Your task to perform on an android device: turn on location history Image 0: 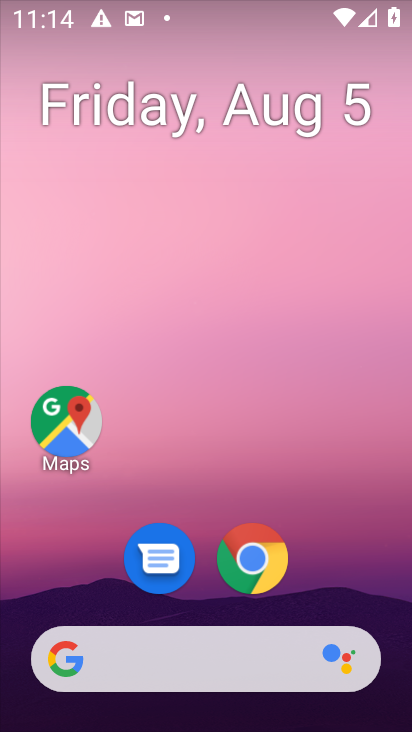
Step 0: press home button
Your task to perform on an android device: turn on location history Image 1: 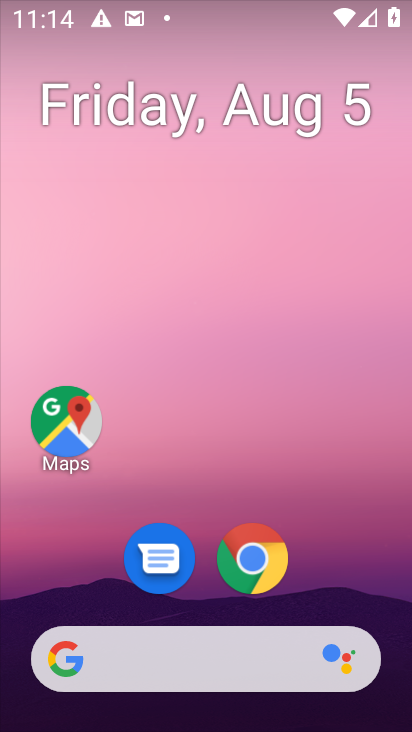
Step 1: drag from (353, 574) to (350, 290)
Your task to perform on an android device: turn on location history Image 2: 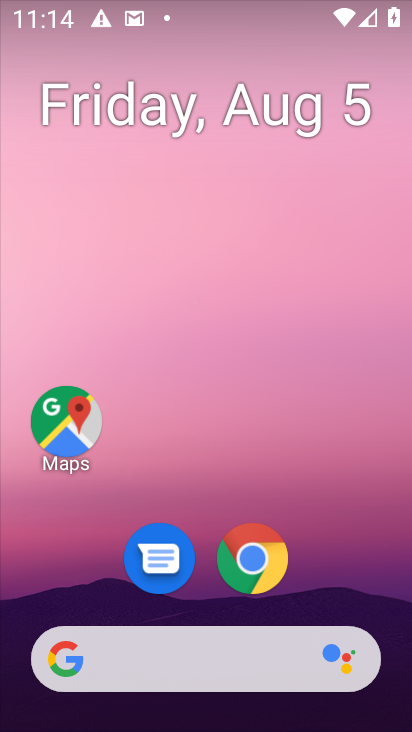
Step 2: drag from (367, 559) to (366, 218)
Your task to perform on an android device: turn on location history Image 3: 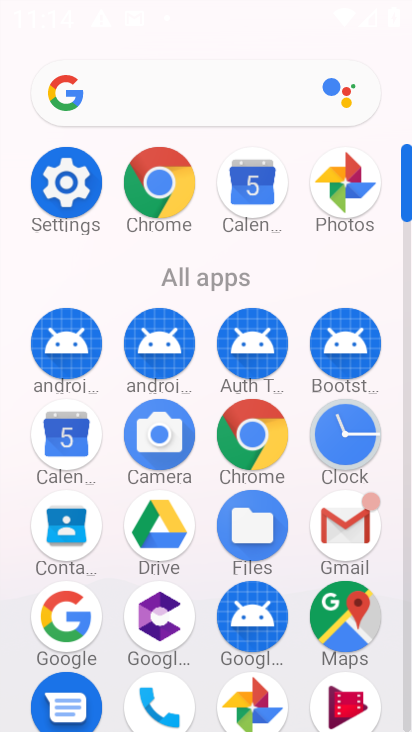
Step 3: click (59, 195)
Your task to perform on an android device: turn on location history Image 4: 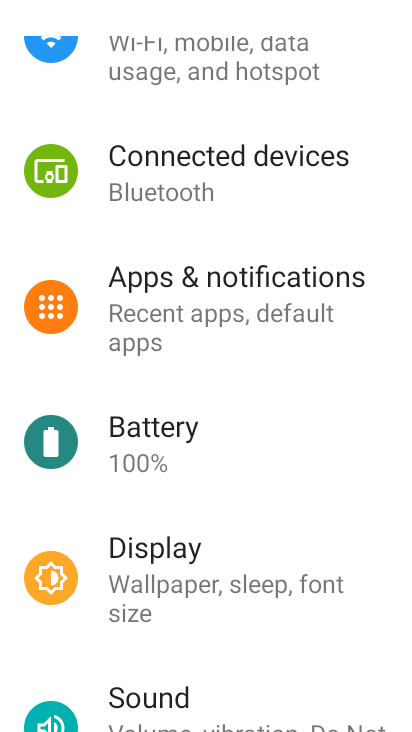
Step 4: drag from (364, 200) to (375, 361)
Your task to perform on an android device: turn on location history Image 5: 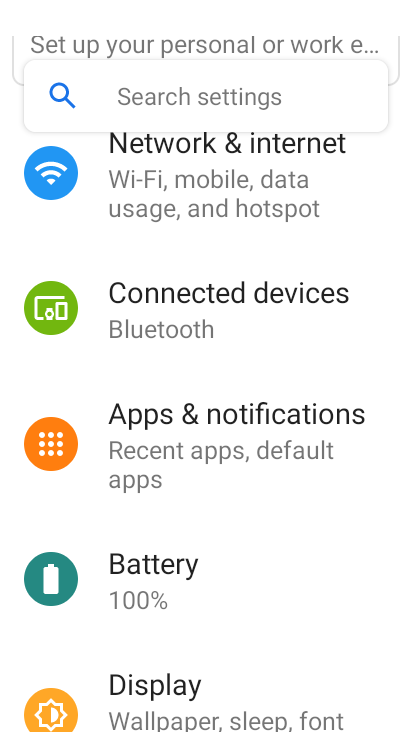
Step 5: drag from (387, 184) to (378, 382)
Your task to perform on an android device: turn on location history Image 6: 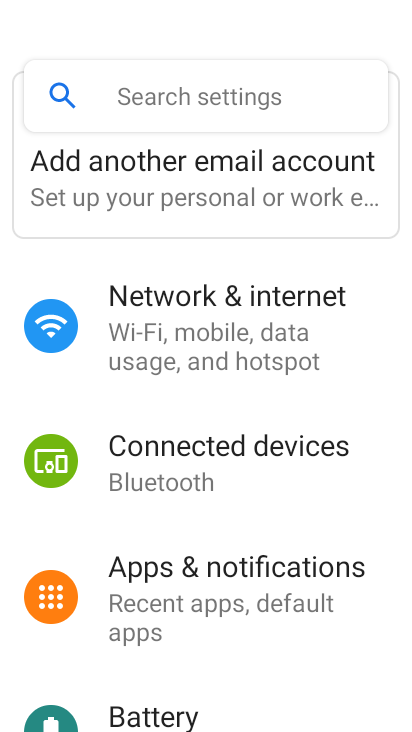
Step 6: drag from (374, 365) to (370, 257)
Your task to perform on an android device: turn on location history Image 7: 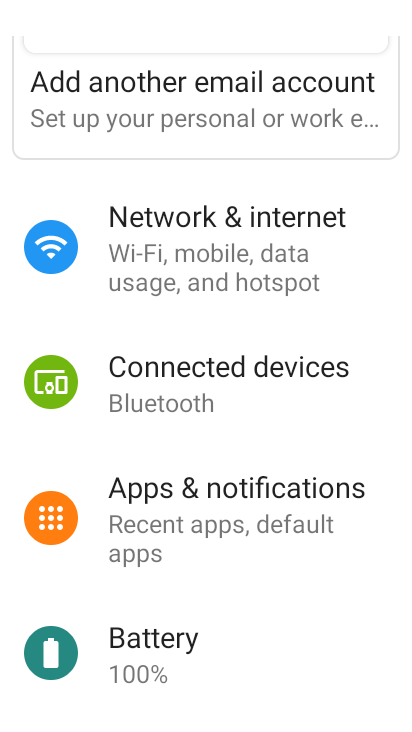
Step 7: drag from (374, 378) to (375, 257)
Your task to perform on an android device: turn on location history Image 8: 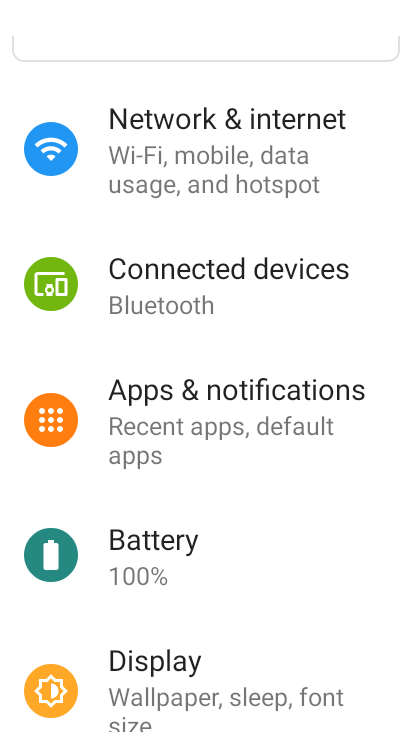
Step 8: drag from (363, 374) to (369, 268)
Your task to perform on an android device: turn on location history Image 9: 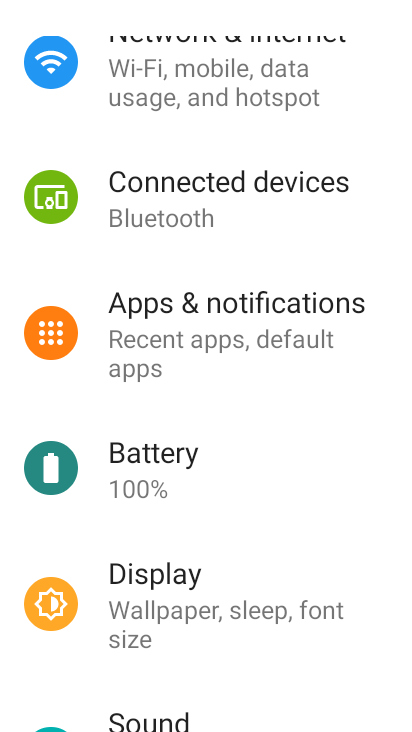
Step 9: drag from (366, 419) to (371, 308)
Your task to perform on an android device: turn on location history Image 10: 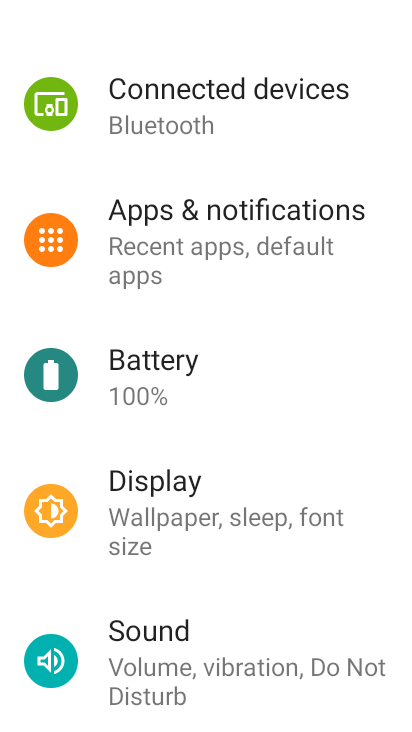
Step 10: drag from (341, 421) to (349, 309)
Your task to perform on an android device: turn on location history Image 11: 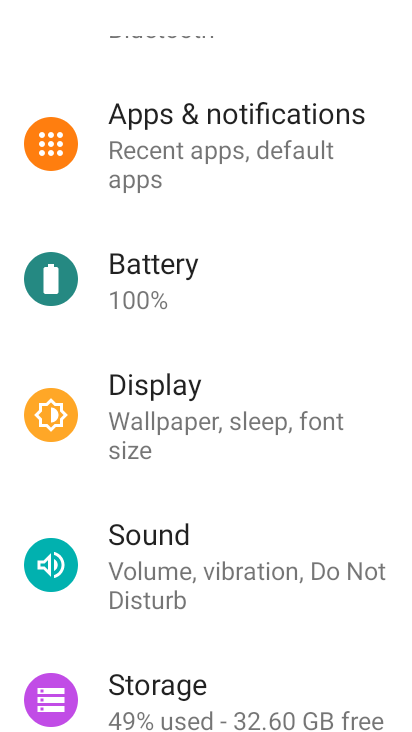
Step 11: drag from (337, 453) to (347, 346)
Your task to perform on an android device: turn on location history Image 12: 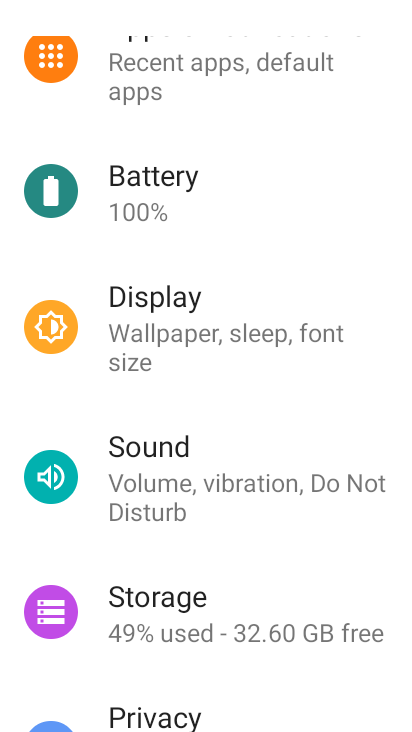
Step 12: drag from (341, 510) to (337, 359)
Your task to perform on an android device: turn on location history Image 13: 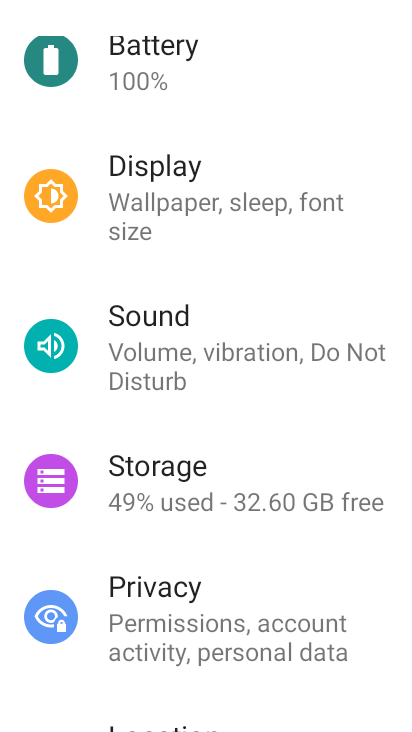
Step 13: drag from (314, 505) to (333, 367)
Your task to perform on an android device: turn on location history Image 14: 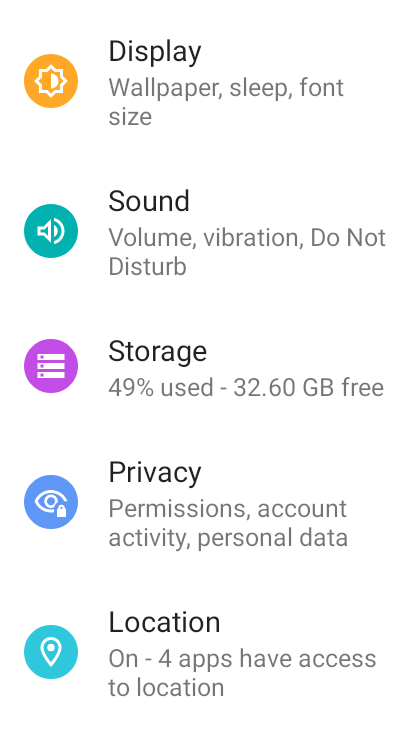
Step 14: drag from (339, 564) to (347, 409)
Your task to perform on an android device: turn on location history Image 15: 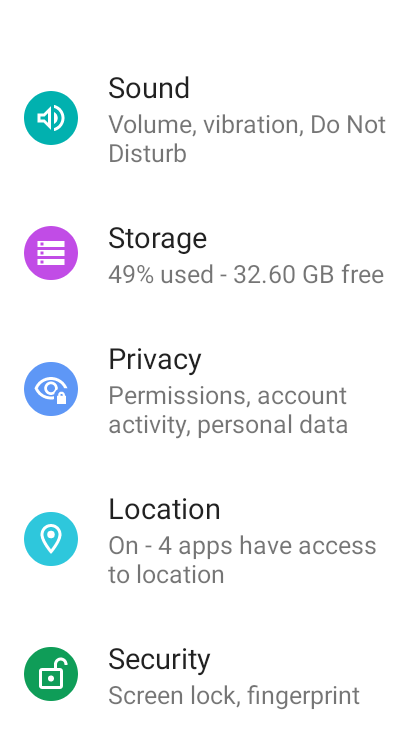
Step 15: click (344, 522)
Your task to perform on an android device: turn on location history Image 16: 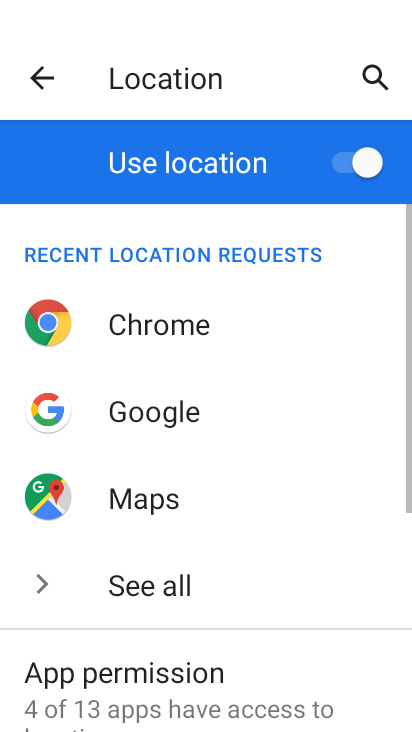
Step 16: drag from (339, 566) to (335, 457)
Your task to perform on an android device: turn on location history Image 17: 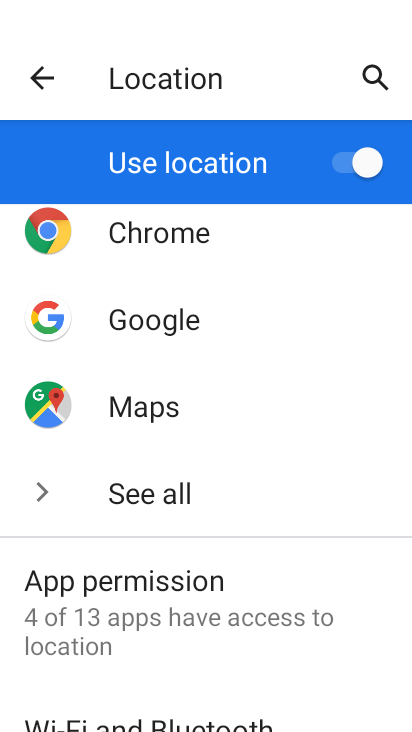
Step 17: drag from (311, 586) to (322, 472)
Your task to perform on an android device: turn on location history Image 18: 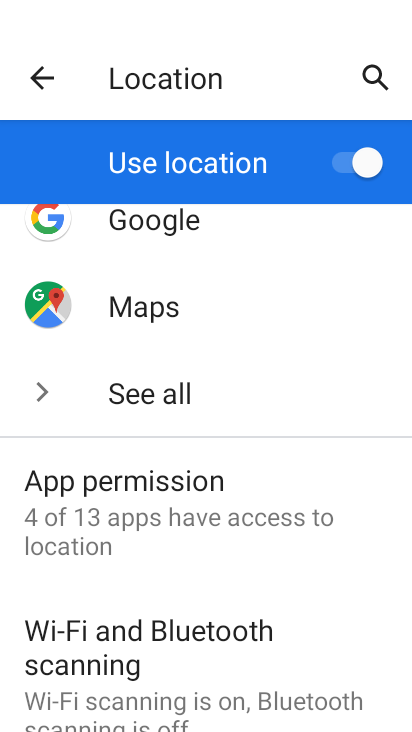
Step 18: drag from (326, 633) to (337, 421)
Your task to perform on an android device: turn on location history Image 19: 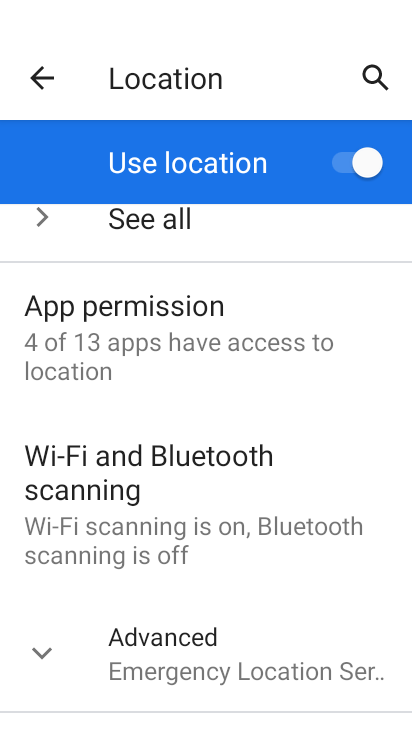
Step 19: click (313, 640)
Your task to perform on an android device: turn on location history Image 20: 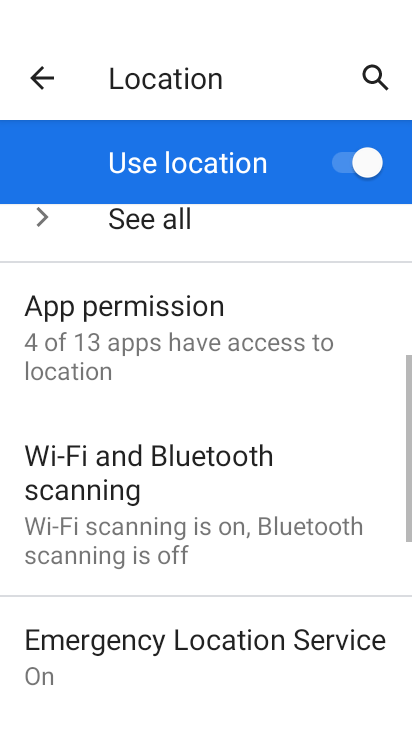
Step 20: drag from (313, 640) to (317, 502)
Your task to perform on an android device: turn on location history Image 21: 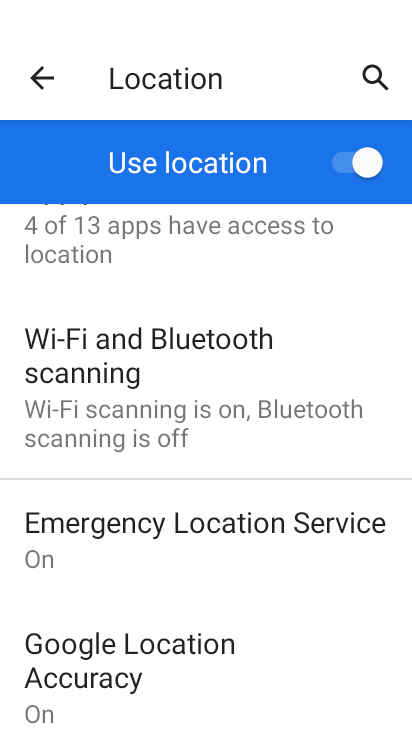
Step 21: drag from (263, 679) to (261, 547)
Your task to perform on an android device: turn on location history Image 22: 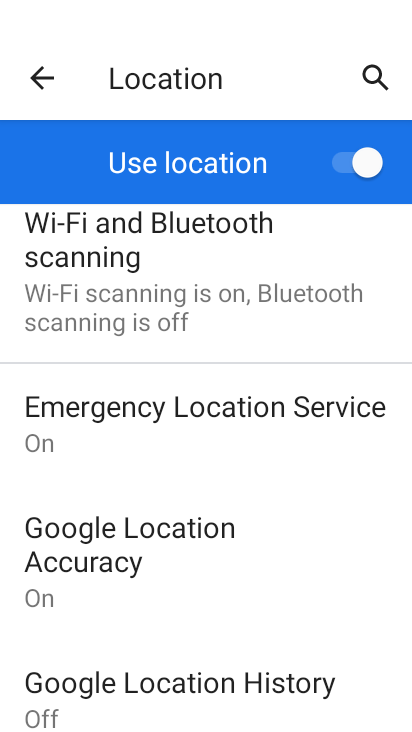
Step 22: click (241, 689)
Your task to perform on an android device: turn on location history Image 23: 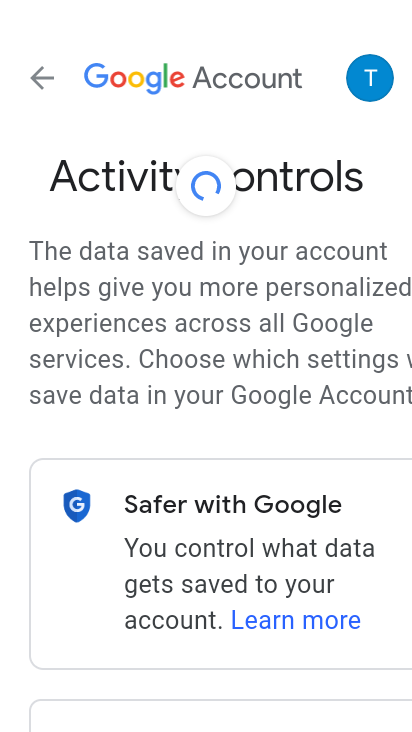
Step 23: drag from (237, 491) to (247, 324)
Your task to perform on an android device: turn on location history Image 24: 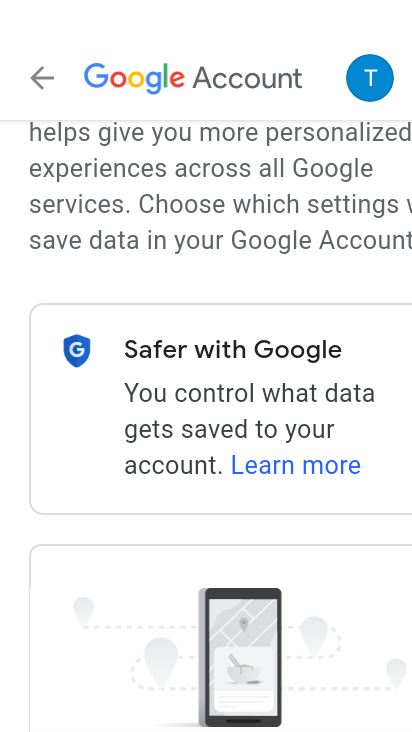
Step 24: drag from (229, 517) to (245, 379)
Your task to perform on an android device: turn on location history Image 25: 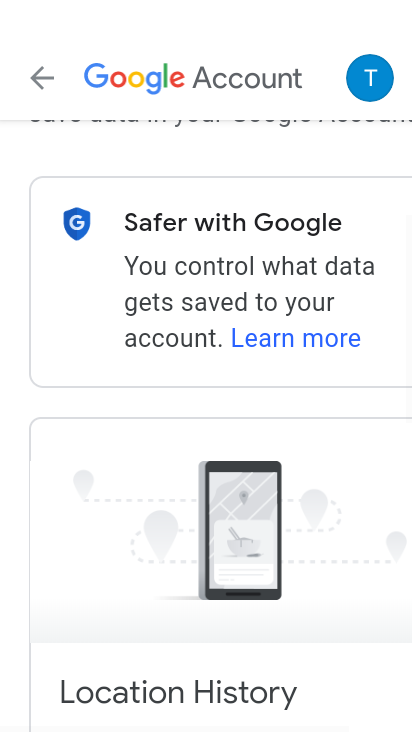
Step 25: drag from (248, 529) to (262, 321)
Your task to perform on an android device: turn on location history Image 26: 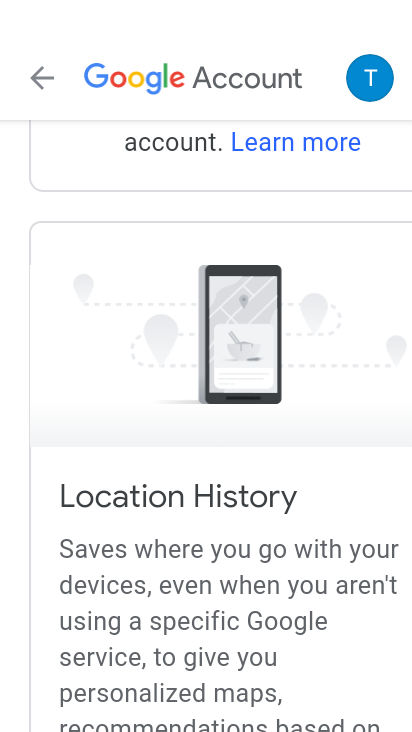
Step 26: drag from (248, 459) to (264, 311)
Your task to perform on an android device: turn on location history Image 27: 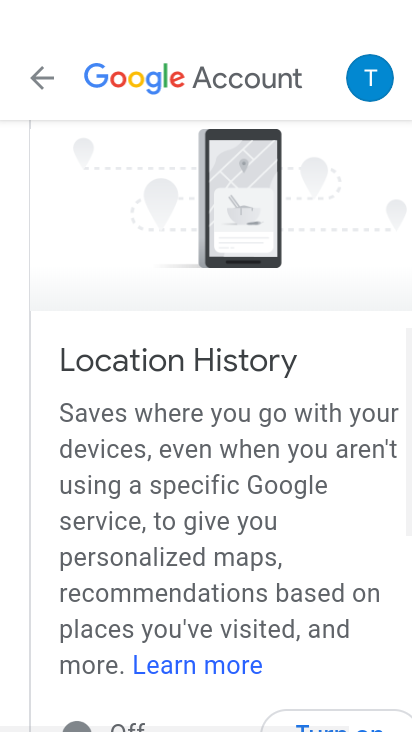
Step 27: drag from (226, 516) to (237, 375)
Your task to perform on an android device: turn on location history Image 28: 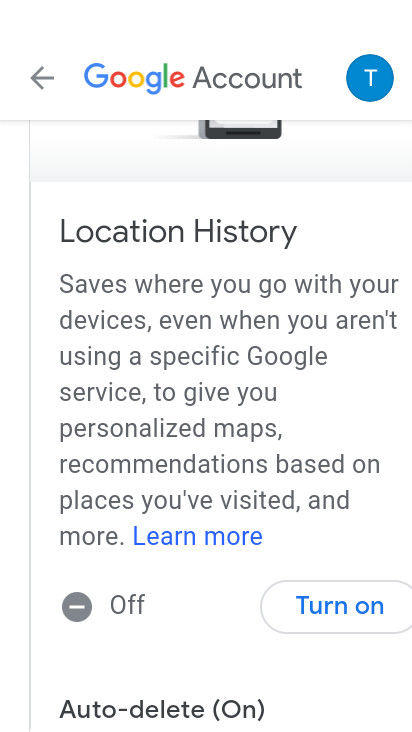
Step 28: click (351, 608)
Your task to perform on an android device: turn on location history Image 29: 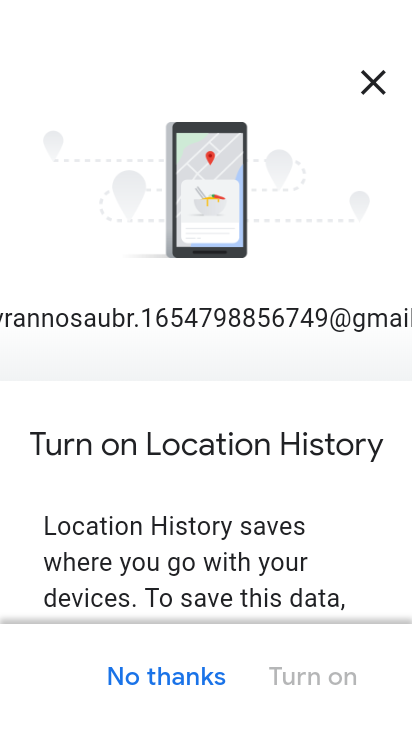
Step 29: drag from (251, 555) to (246, 427)
Your task to perform on an android device: turn on location history Image 30: 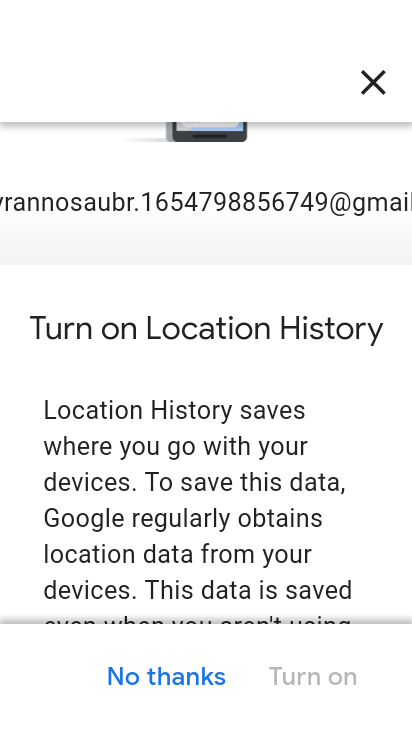
Step 30: drag from (271, 558) to (296, 400)
Your task to perform on an android device: turn on location history Image 31: 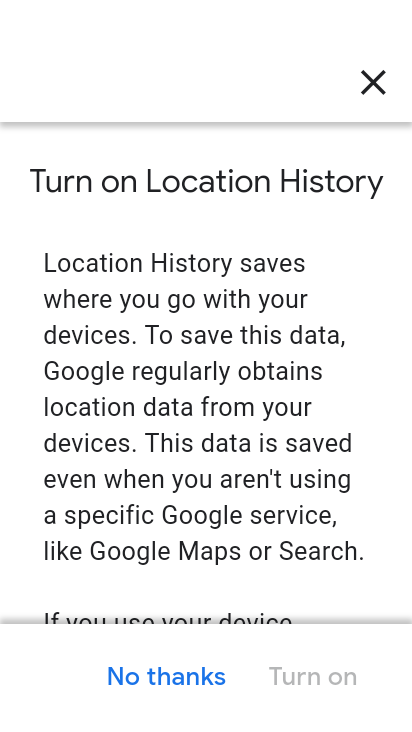
Step 31: drag from (284, 552) to (285, 413)
Your task to perform on an android device: turn on location history Image 32: 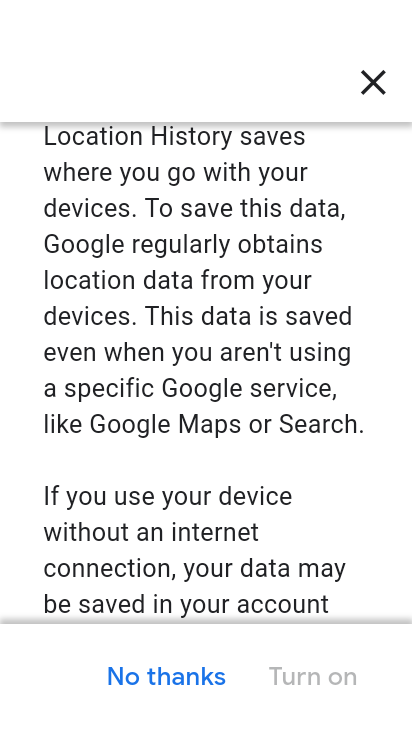
Step 32: drag from (287, 597) to (294, 439)
Your task to perform on an android device: turn on location history Image 33: 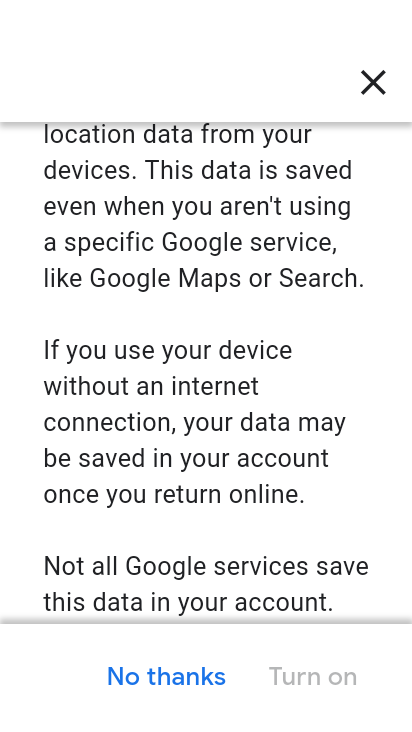
Step 33: drag from (268, 591) to (283, 444)
Your task to perform on an android device: turn on location history Image 34: 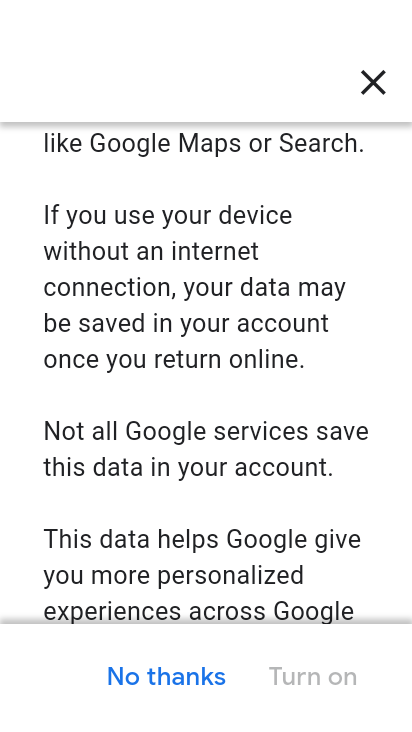
Step 34: drag from (273, 576) to (291, 404)
Your task to perform on an android device: turn on location history Image 35: 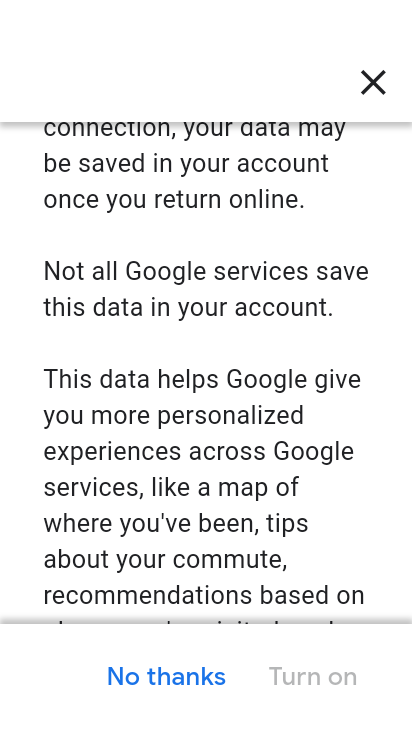
Step 35: drag from (282, 582) to (295, 410)
Your task to perform on an android device: turn on location history Image 36: 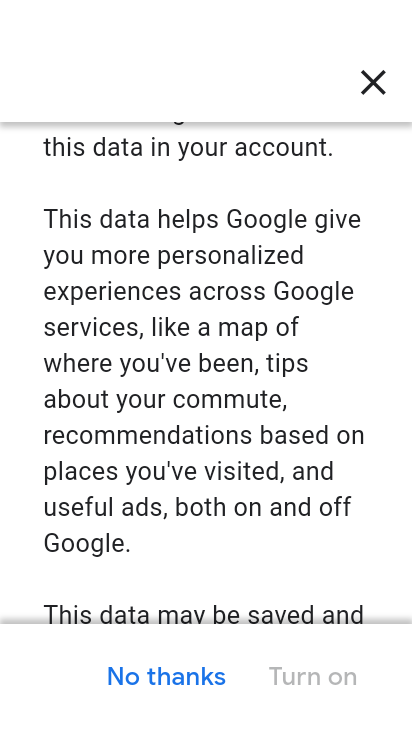
Step 36: drag from (283, 574) to (287, 398)
Your task to perform on an android device: turn on location history Image 37: 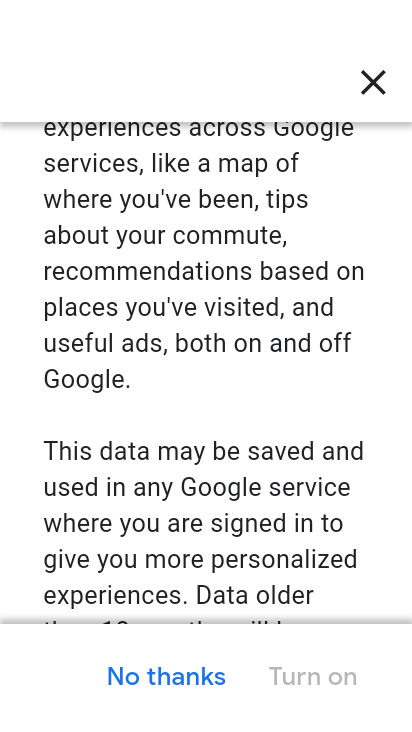
Step 37: drag from (279, 543) to (287, 415)
Your task to perform on an android device: turn on location history Image 38: 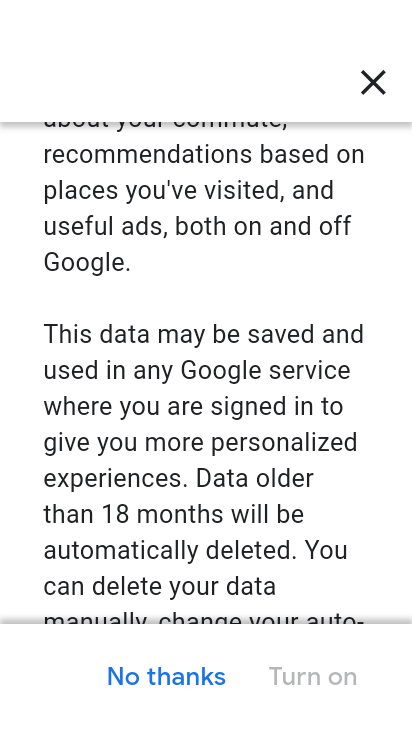
Step 38: drag from (300, 547) to (315, 368)
Your task to perform on an android device: turn on location history Image 39: 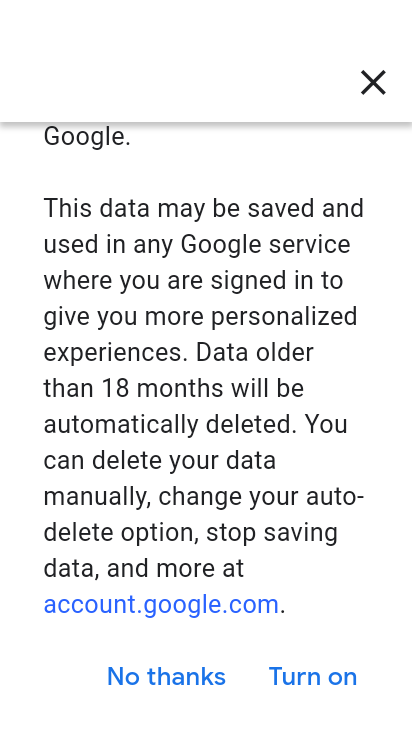
Step 39: click (314, 678)
Your task to perform on an android device: turn on location history Image 40: 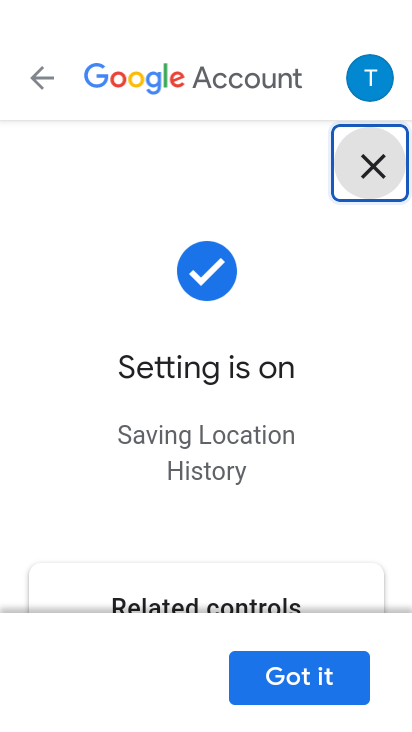
Step 40: task complete